Your task to perform on an android device: turn off wifi Image 0: 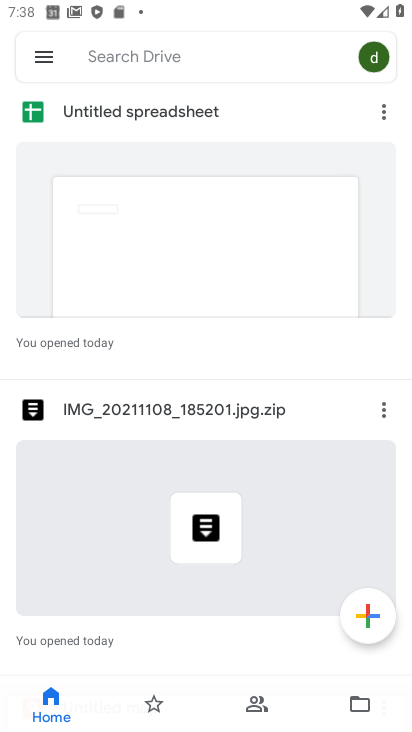
Step 0: drag from (163, 16) to (7, 187)
Your task to perform on an android device: turn off wifi Image 1: 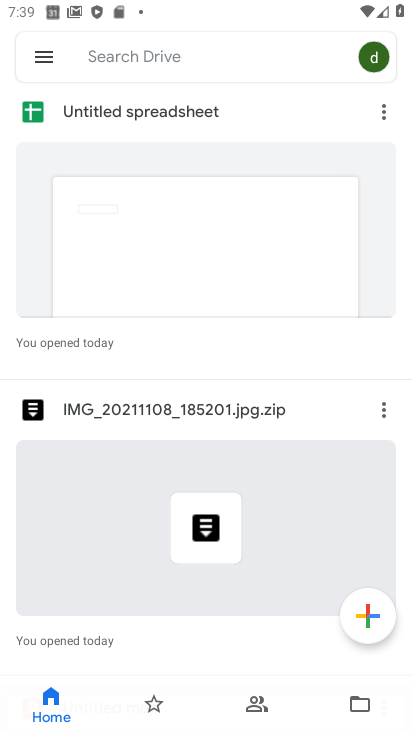
Step 1: drag from (124, 10) to (47, 617)
Your task to perform on an android device: turn off wifi Image 2: 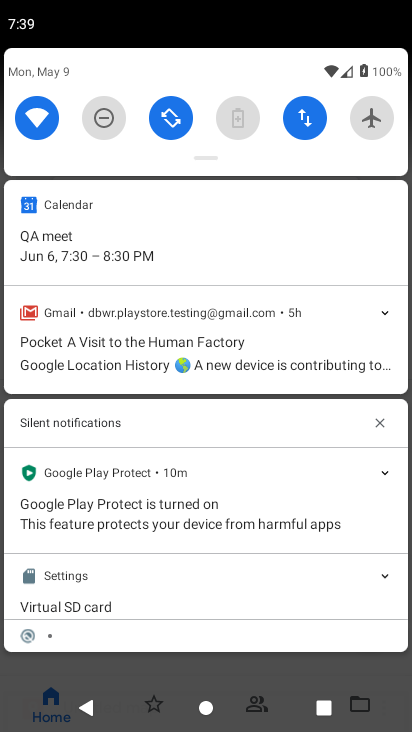
Step 2: click (41, 128)
Your task to perform on an android device: turn off wifi Image 3: 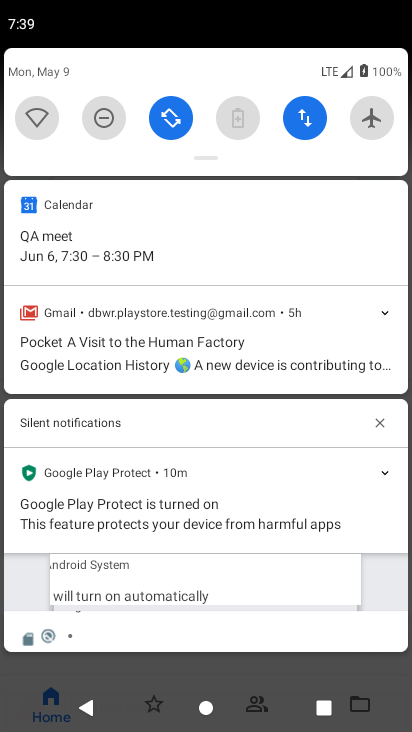
Step 3: task complete